Your task to perform on an android device: turn off priority inbox in the gmail app Image 0: 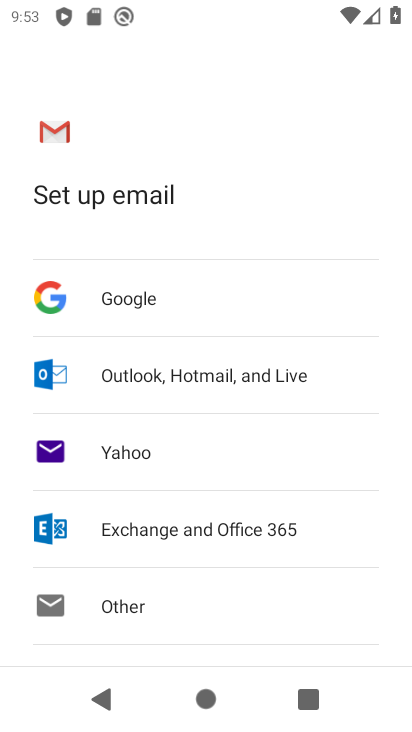
Step 0: press home button
Your task to perform on an android device: turn off priority inbox in the gmail app Image 1: 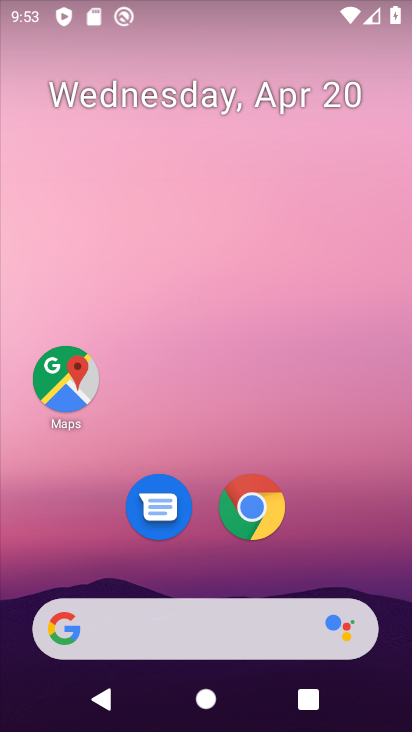
Step 1: drag from (191, 566) to (191, 223)
Your task to perform on an android device: turn off priority inbox in the gmail app Image 2: 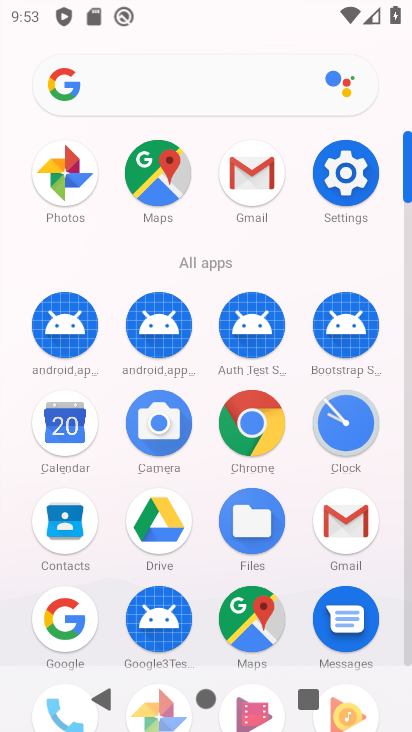
Step 2: click (361, 513)
Your task to perform on an android device: turn off priority inbox in the gmail app Image 3: 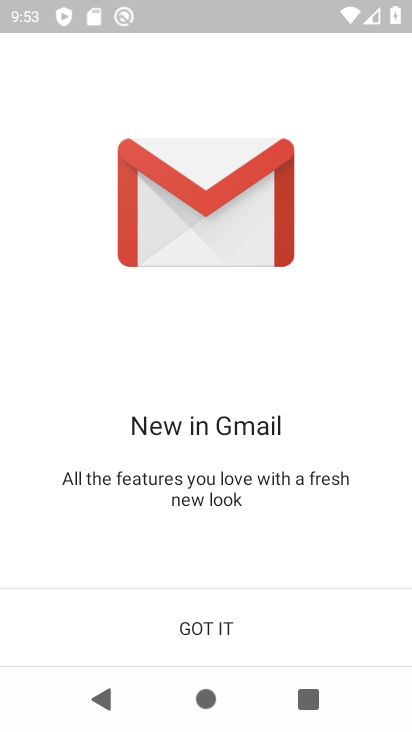
Step 3: click (190, 633)
Your task to perform on an android device: turn off priority inbox in the gmail app Image 4: 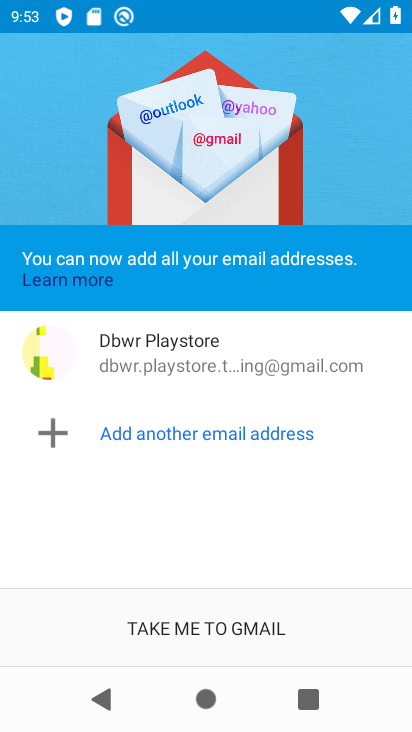
Step 4: click (260, 620)
Your task to perform on an android device: turn off priority inbox in the gmail app Image 5: 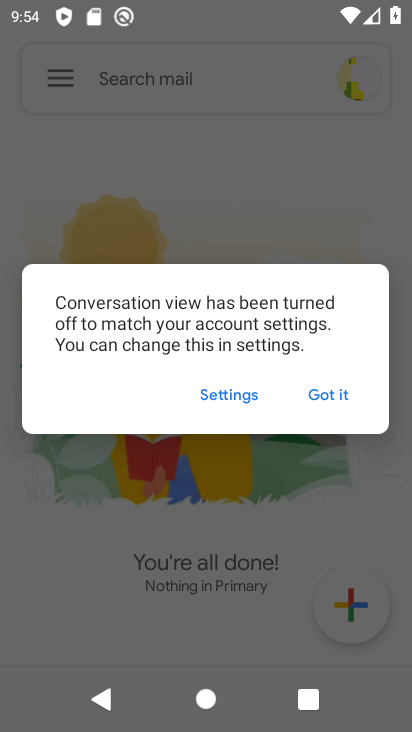
Step 5: click (329, 384)
Your task to perform on an android device: turn off priority inbox in the gmail app Image 6: 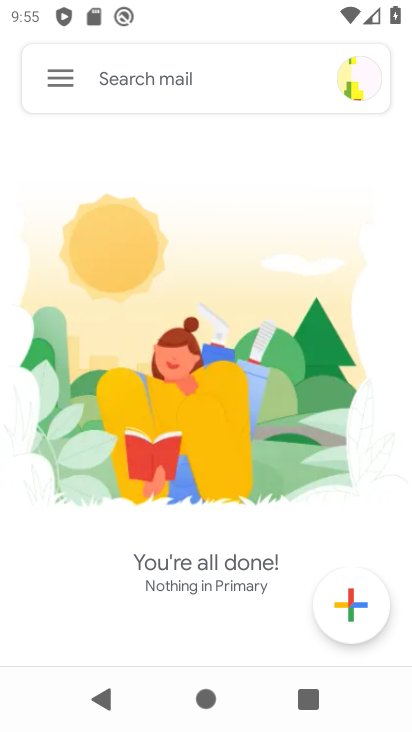
Step 6: click (58, 87)
Your task to perform on an android device: turn off priority inbox in the gmail app Image 7: 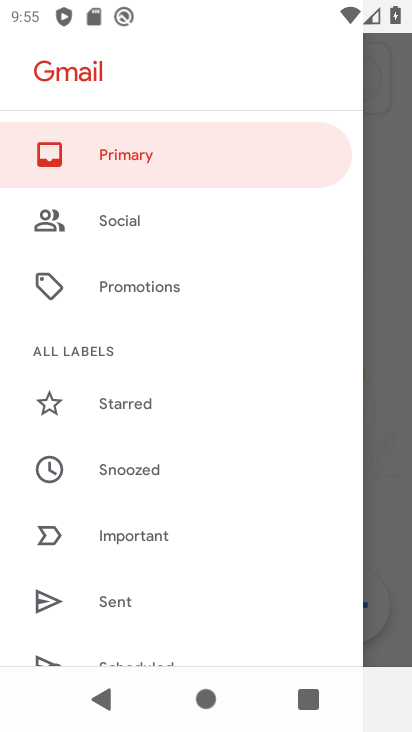
Step 7: drag from (188, 525) to (205, 271)
Your task to perform on an android device: turn off priority inbox in the gmail app Image 8: 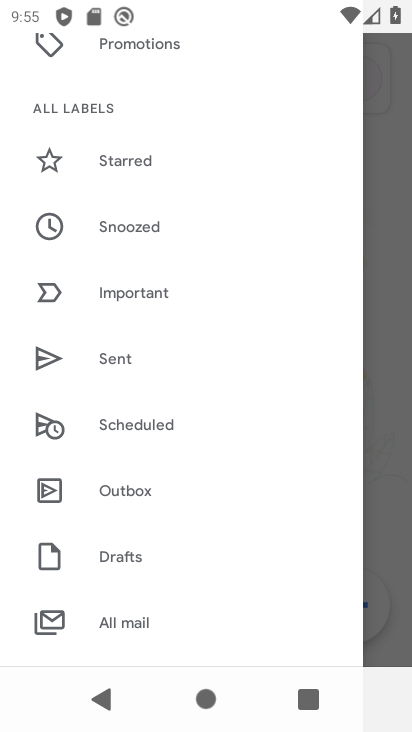
Step 8: drag from (137, 559) to (160, 294)
Your task to perform on an android device: turn off priority inbox in the gmail app Image 9: 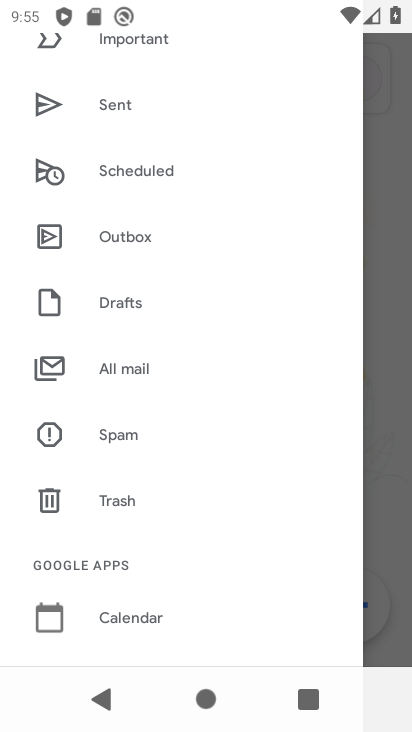
Step 9: drag from (153, 630) to (152, 298)
Your task to perform on an android device: turn off priority inbox in the gmail app Image 10: 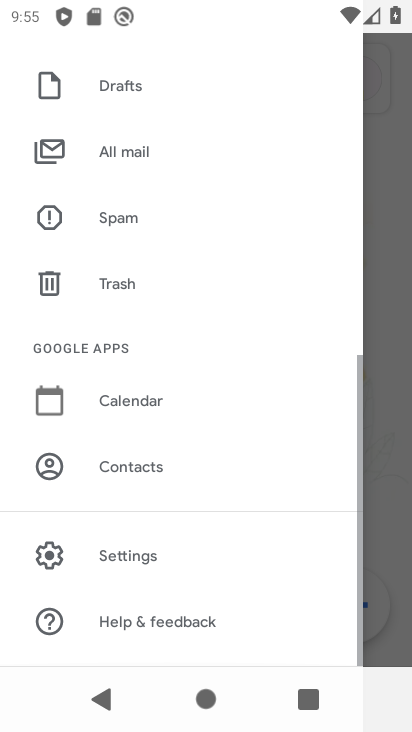
Step 10: click (107, 552)
Your task to perform on an android device: turn off priority inbox in the gmail app Image 11: 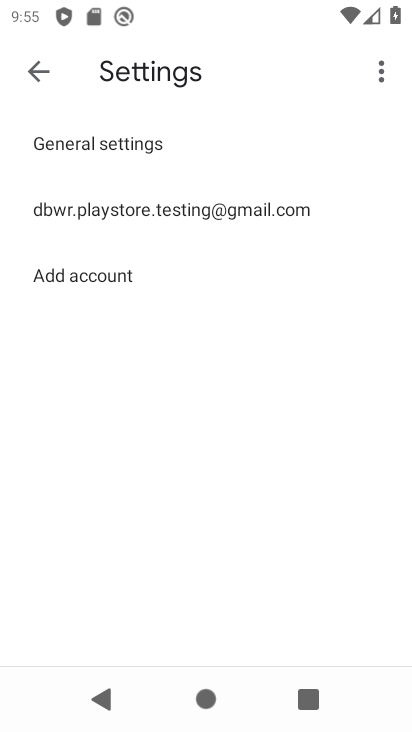
Step 11: click (179, 226)
Your task to perform on an android device: turn off priority inbox in the gmail app Image 12: 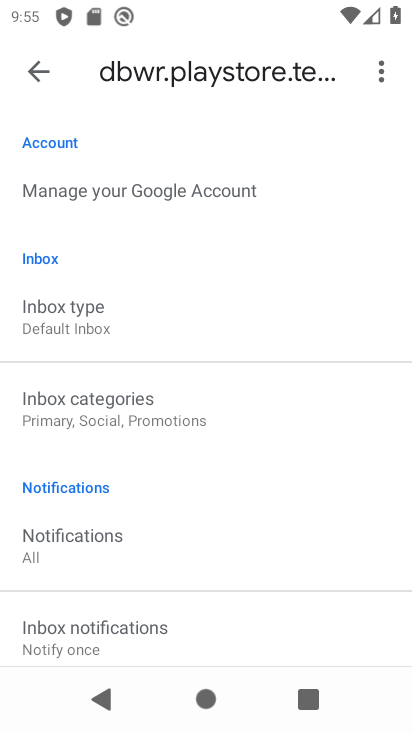
Step 12: click (86, 315)
Your task to perform on an android device: turn off priority inbox in the gmail app Image 13: 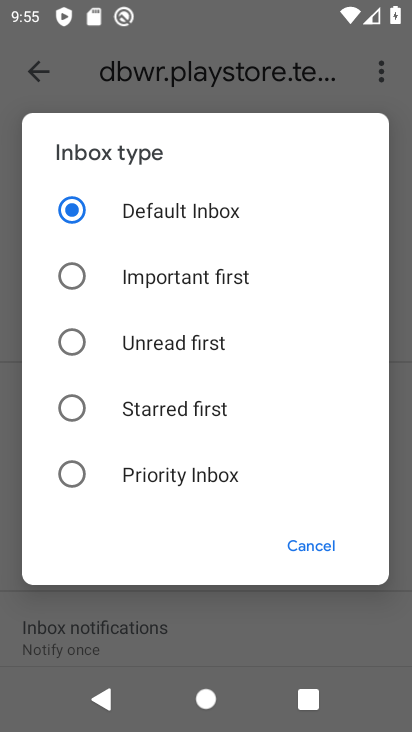
Step 13: task complete